Your task to perform on an android device: Check the weather Image 0: 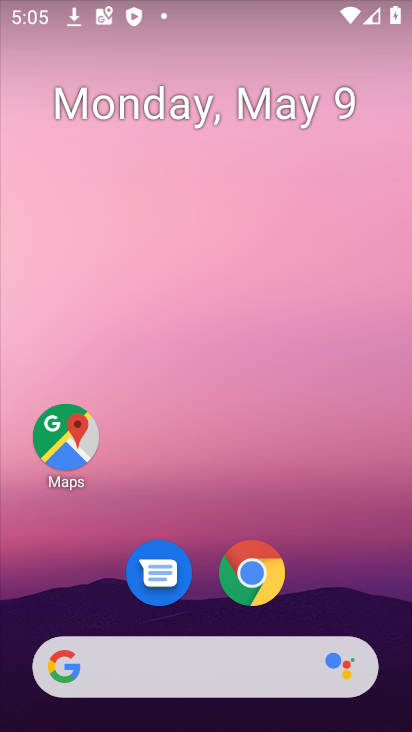
Step 0: click (73, 452)
Your task to perform on an android device: Check the weather Image 1: 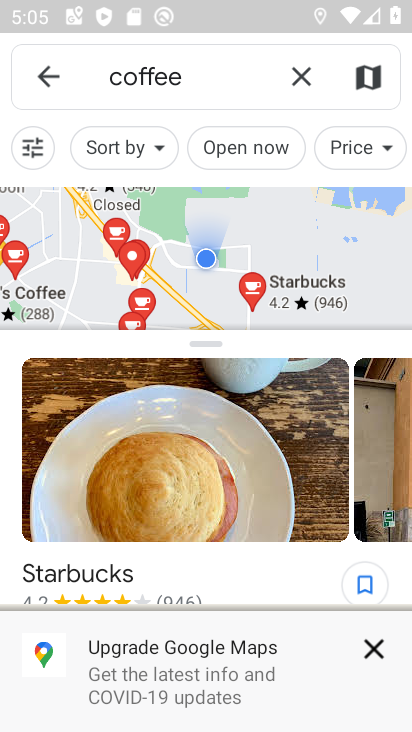
Step 1: press home button
Your task to perform on an android device: Check the weather Image 2: 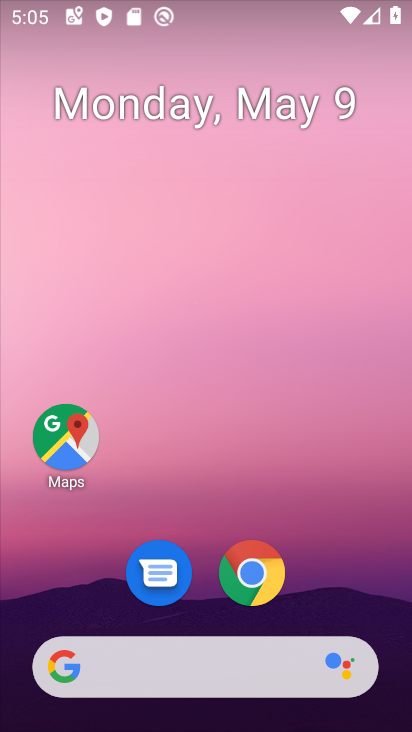
Step 2: drag from (340, 596) to (294, 56)
Your task to perform on an android device: Check the weather Image 3: 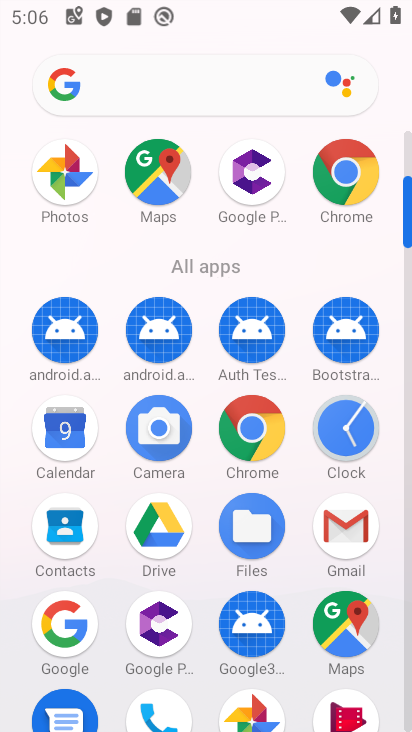
Step 3: click (83, 642)
Your task to perform on an android device: Check the weather Image 4: 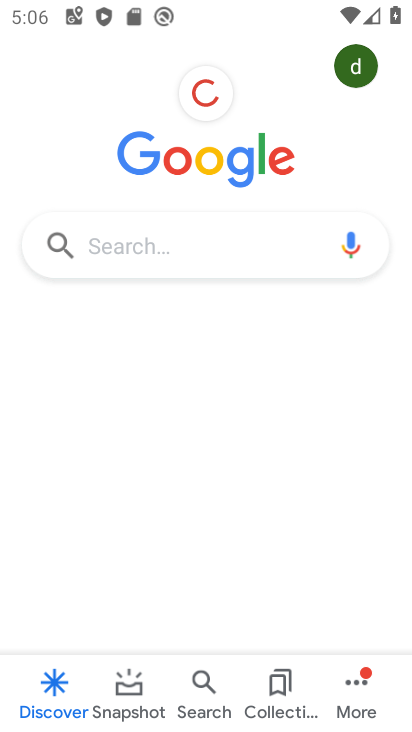
Step 4: click (200, 247)
Your task to perform on an android device: Check the weather Image 5: 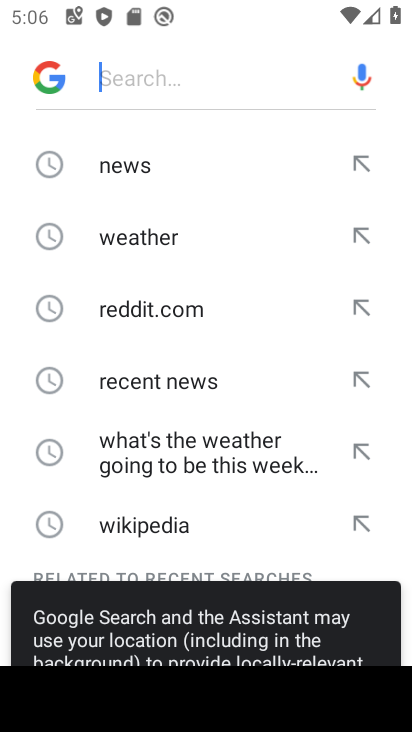
Step 5: click (167, 234)
Your task to perform on an android device: Check the weather Image 6: 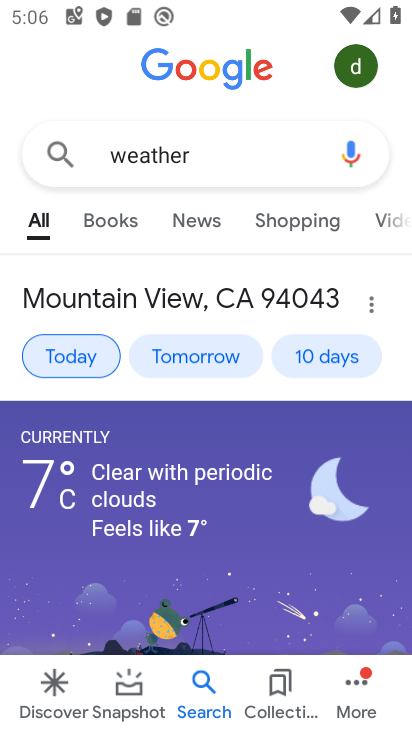
Step 6: task complete